Your task to perform on an android device: open the mobile data screen to see how much data has been used Image 0: 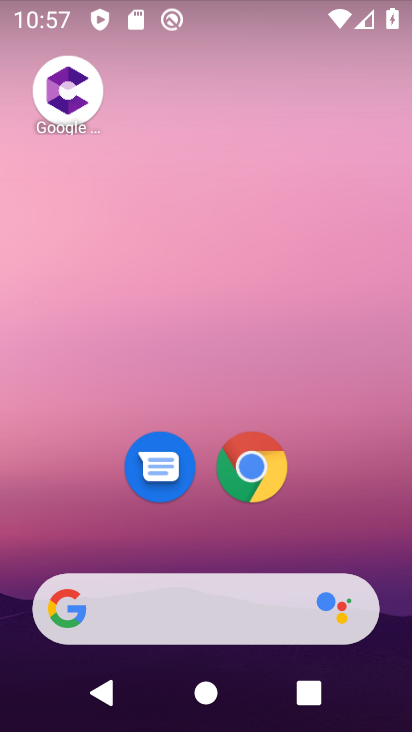
Step 0: drag from (200, 454) to (264, 32)
Your task to perform on an android device: open the mobile data screen to see how much data has been used Image 1: 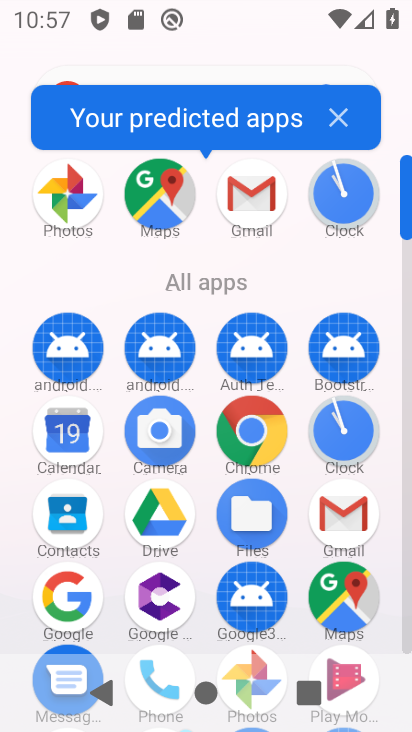
Step 1: drag from (215, 559) to (322, 44)
Your task to perform on an android device: open the mobile data screen to see how much data has been used Image 2: 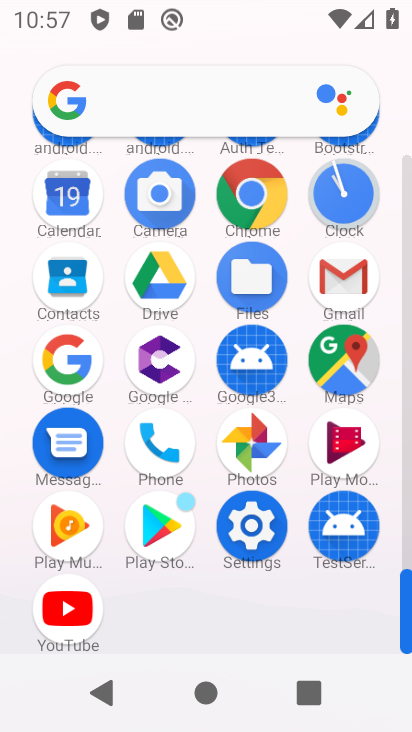
Step 2: click (247, 516)
Your task to perform on an android device: open the mobile data screen to see how much data has been used Image 3: 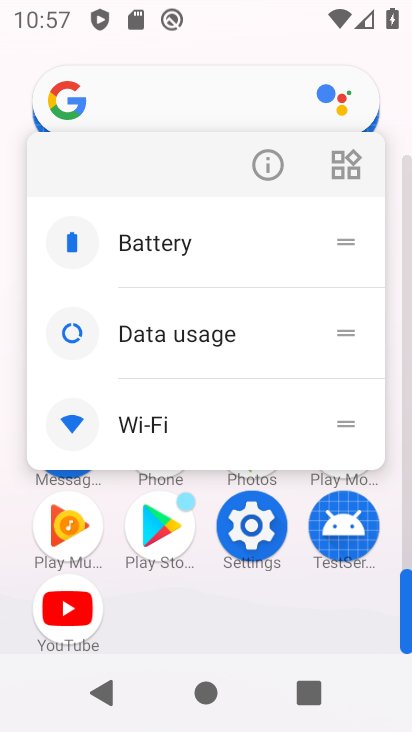
Step 3: click (247, 516)
Your task to perform on an android device: open the mobile data screen to see how much data has been used Image 4: 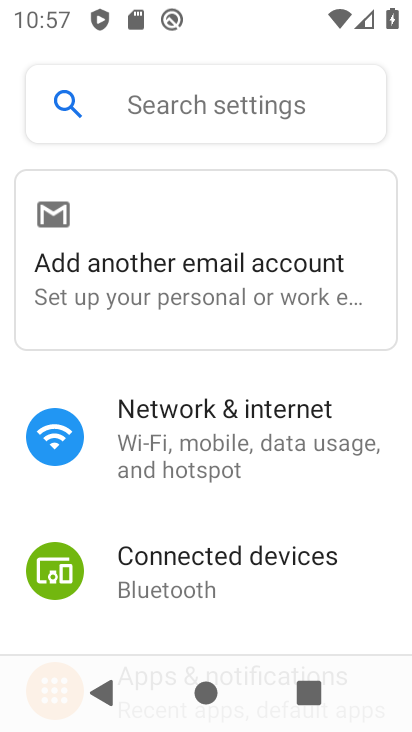
Step 4: click (206, 452)
Your task to perform on an android device: open the mobile data screen to see how much data has been used Image 5: 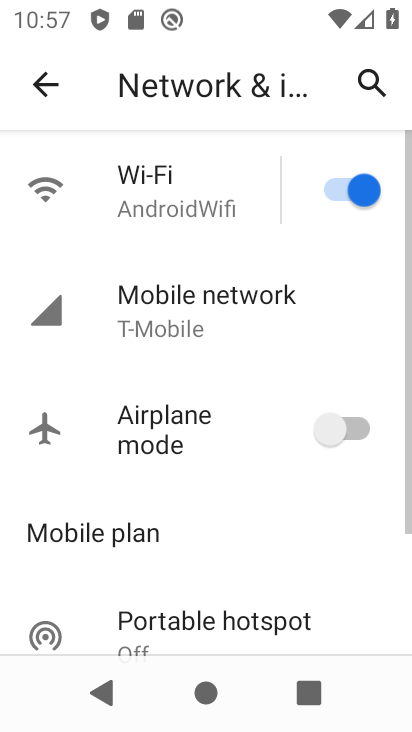
Step 5: drag from (185, 591) to (293, 52)
Your task to perform on an android device: open the mobile data screen to see how much data has been used Image 6: 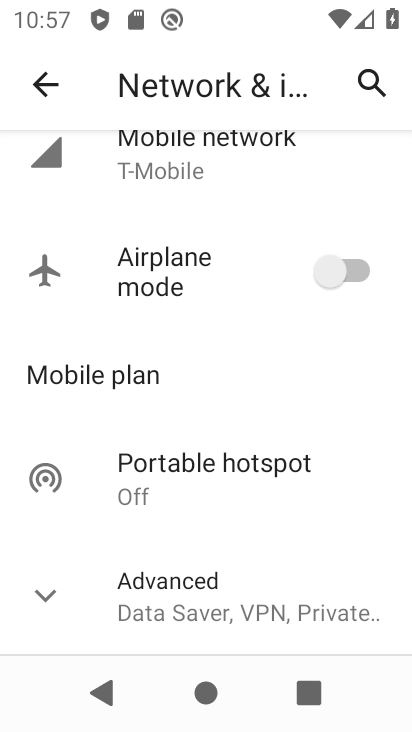
Step 6: click (207, 156)
Your task to perform on an android device: open the mobile data screen to see how much data has been used Image 7: 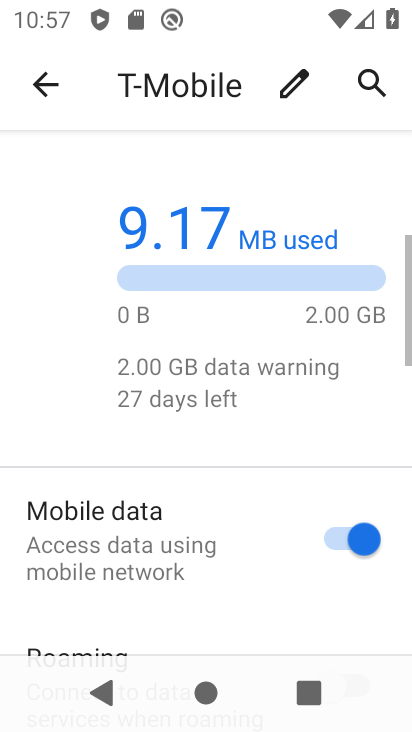
Step 7: drag from (153, 593) to (250, 100)
Your task to perform on an android device: open the mobile data screen to see how much data has been used Image 8: 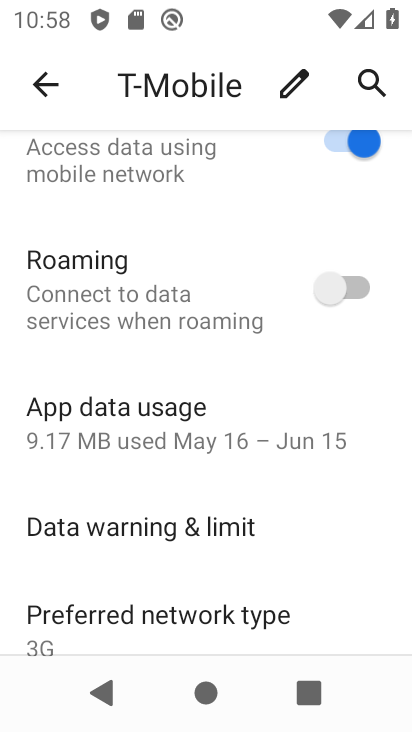
Step 8: click (162, 414)
Your task to perform on an android device: open the mobile data screen to see how much data has been used Image 9: 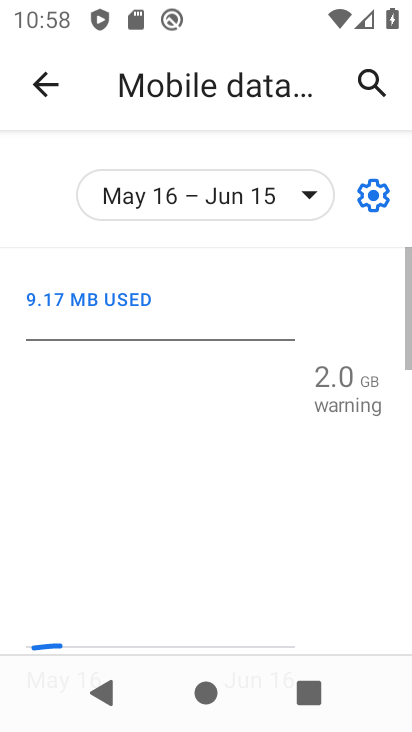
Step 9: task complete